Your task to perform on an android device: Open CNN.com Image 0: 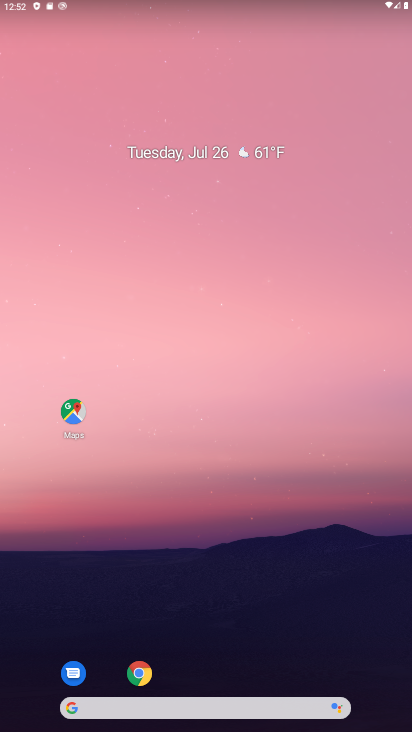
Step 0: drag from (175, 662) to (261, 16)
Your task to perform on an android device: Open CNN.com Image 1: 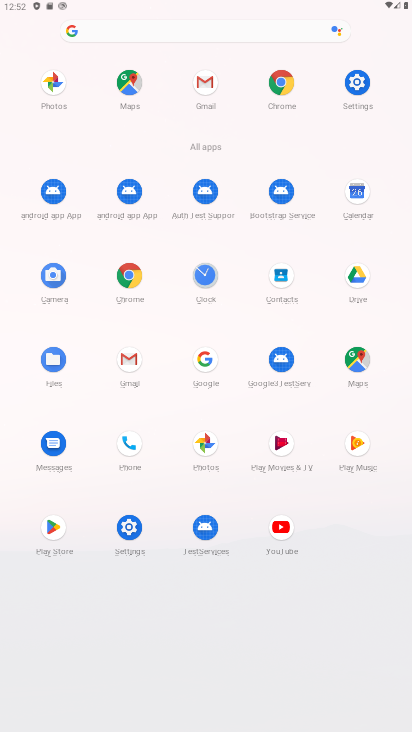
Step 1: click (161, 28)
Your task to perform on an android device: Open CNN.com Image 2: 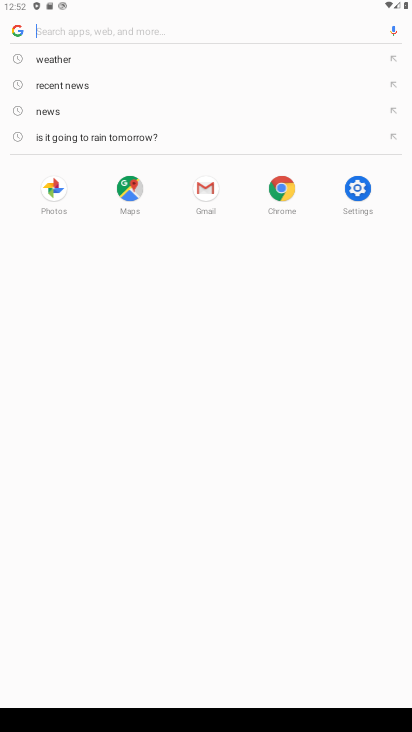
Step 2: type "CNN.com"
Your task to perform on an android device: Open CNN.com Image 3: 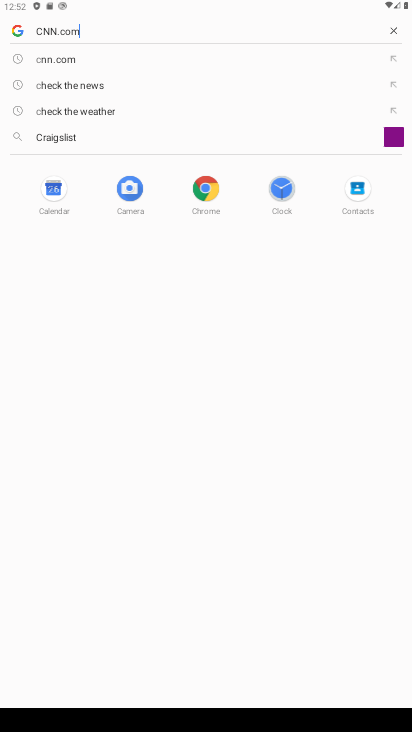
Step 3: type ""
Your task to perform on an android device: Open CNN.com Image 4: 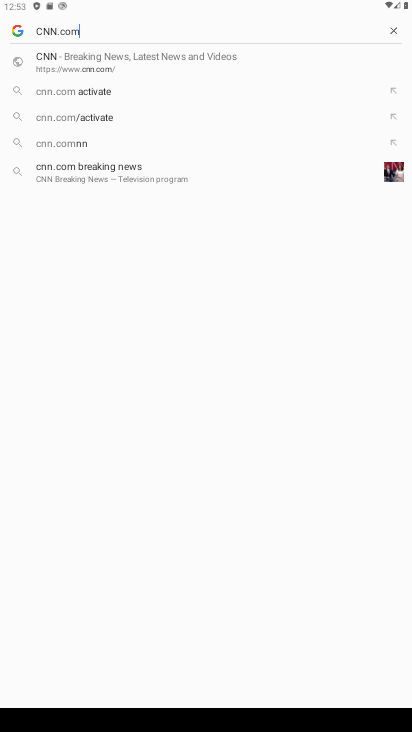
Step 4: click (65, 68)
Your task to perform on an android device: Open CNN.com Image 5: 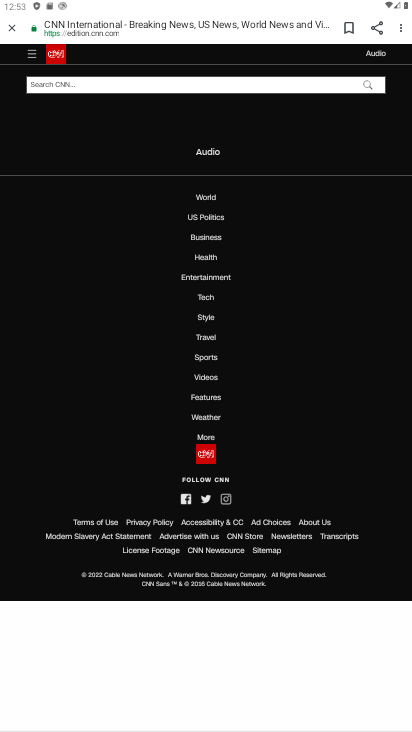
Step 5: task complete